Your task to perform on an android device: Search for bose quietcomfort 35 on costco, select the first entry, and add it to the cart. Image 0: 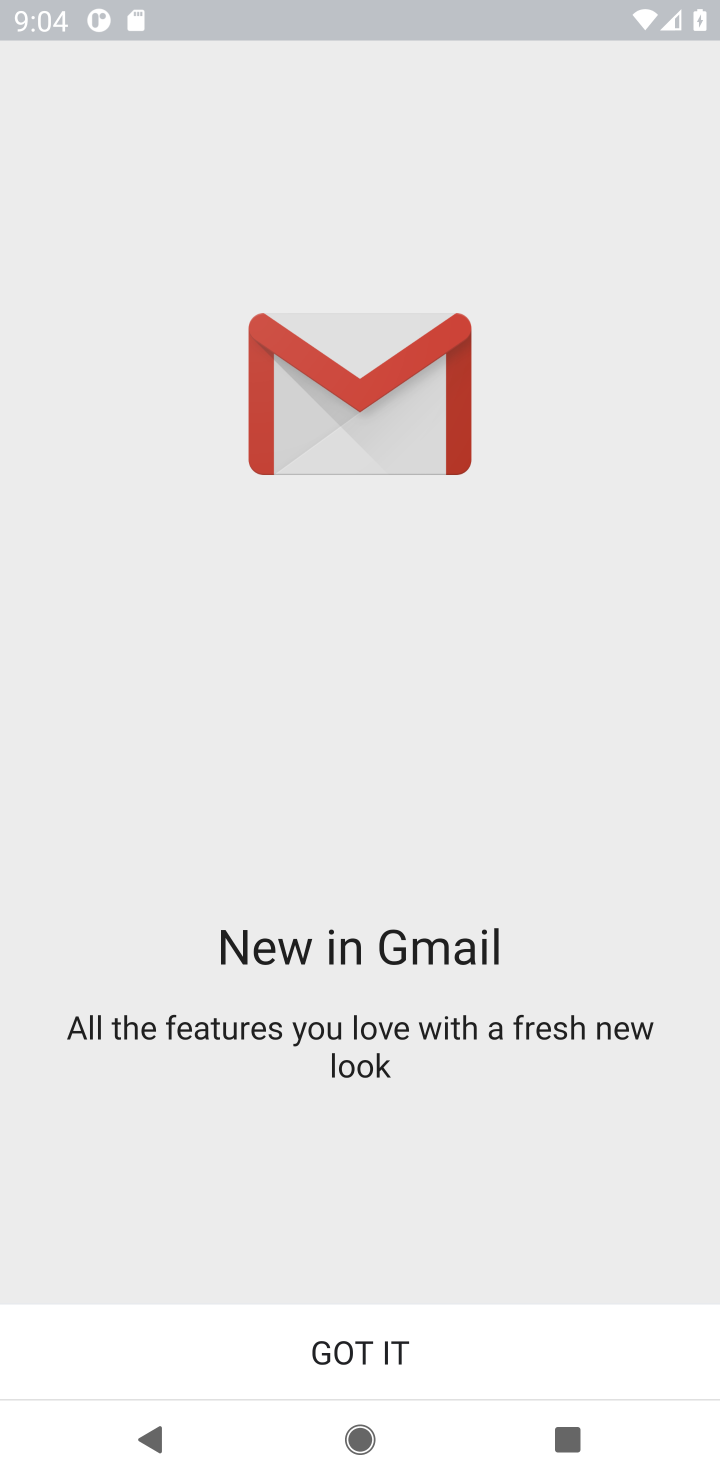
Step 0: press home button
Your task to perform on an android device: Search for bose quietcomfort 35 on costco, select the first entry, and add it to the cart. Image 1: 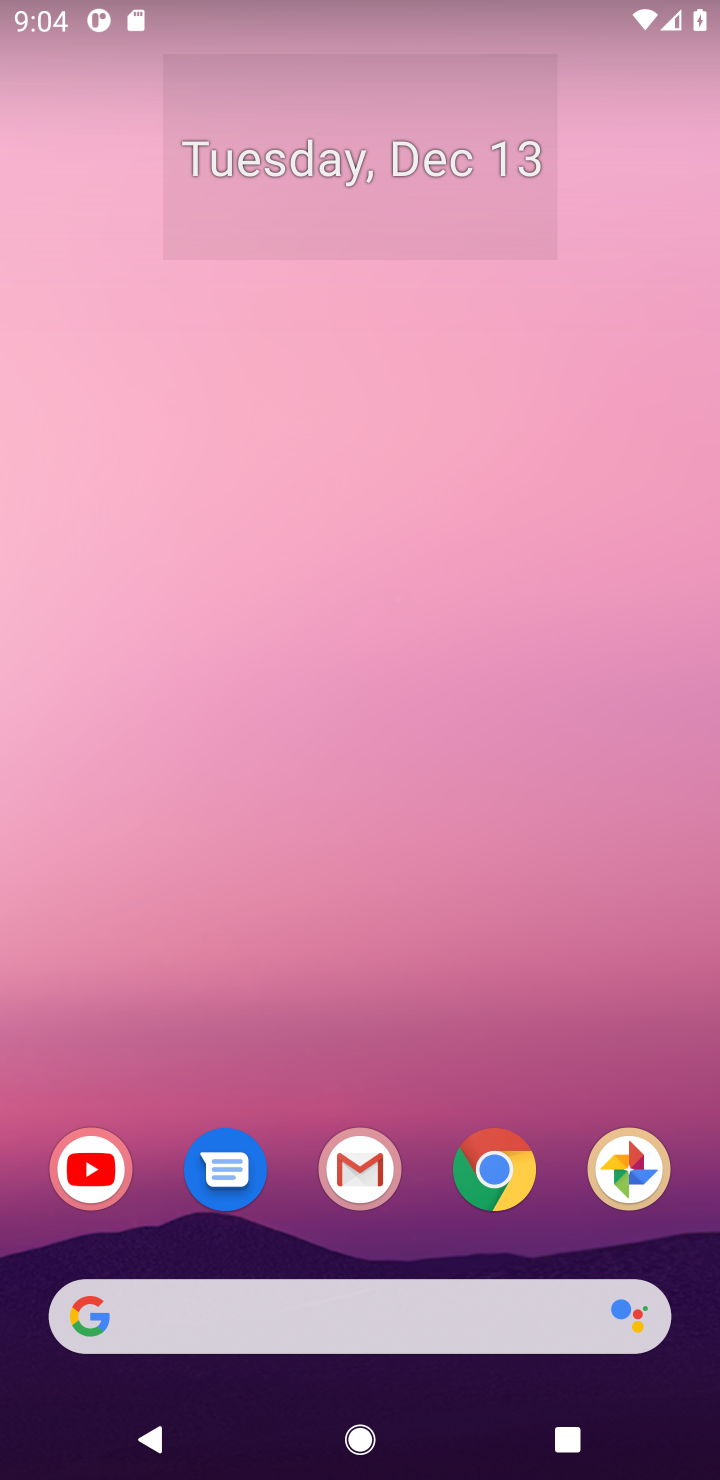
Step 1: click (381, 1301)
Your task to perform on an android device: Search for bose quietcomfort 35 on costco, select the first entry, and add it to the cart. Image 2: 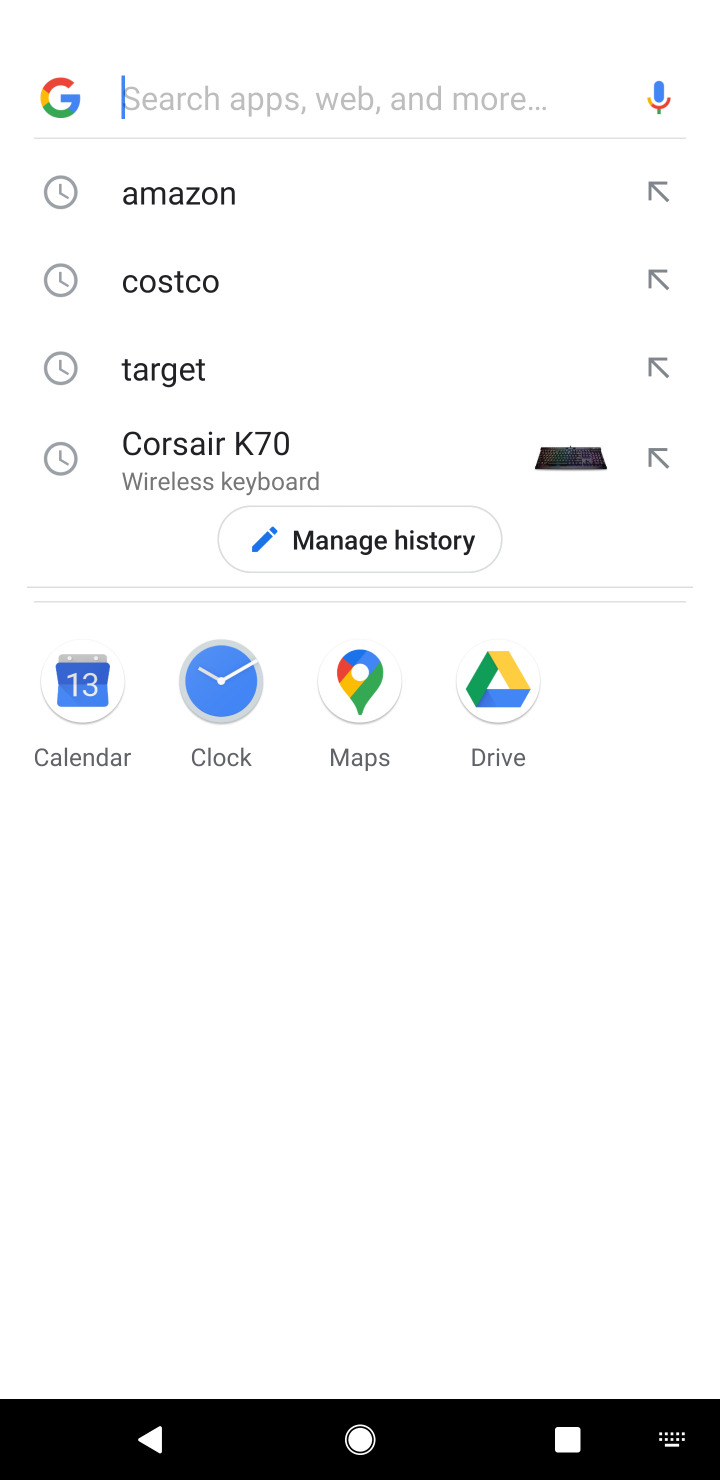
Step 2: type "costco"
Your task to perform on an android device: Search for bose quietcomfort 35 on costco, select the first entry, and add it to the cart. Image 3: 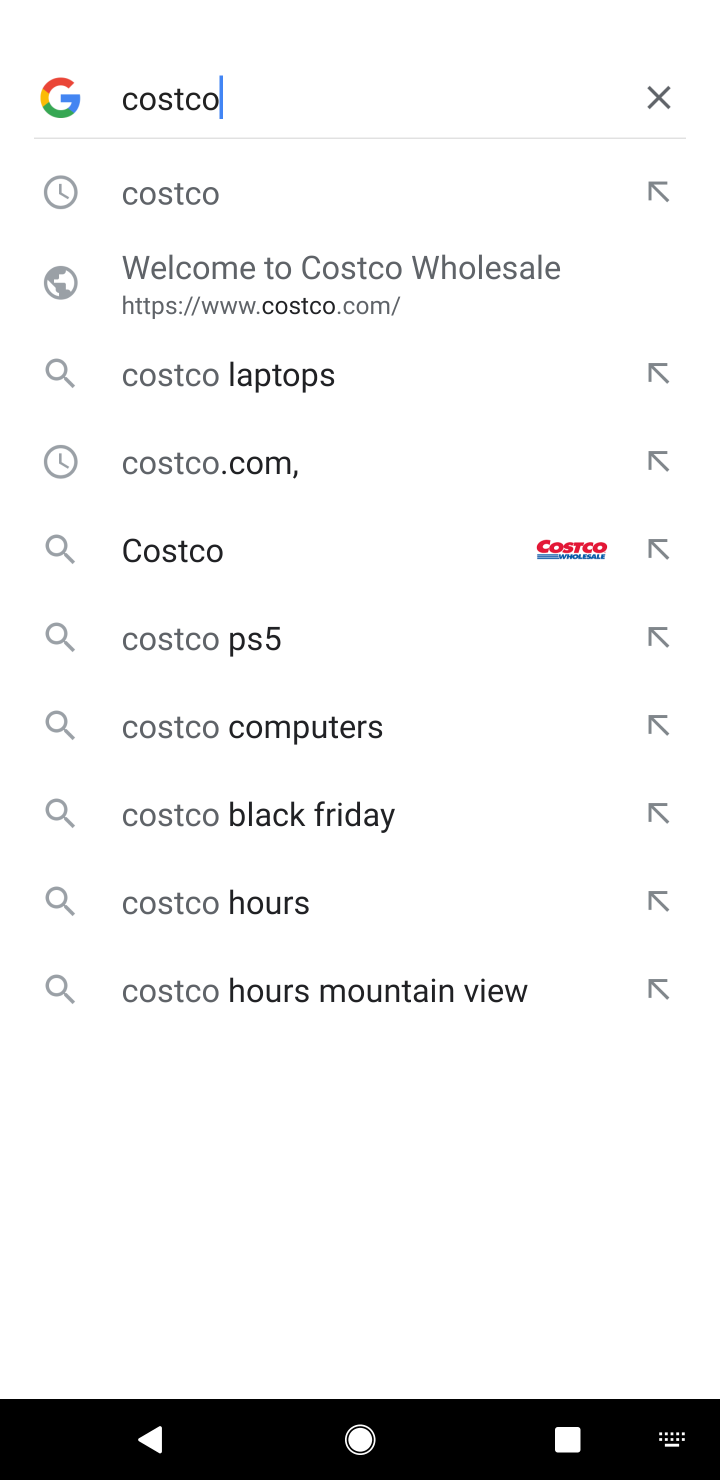
Step 3: click (220, 541)
Your task to perform on an android device: Search for bose quietcomfort 35 on costco, select the first entry, and add it to the cart. Image 4: 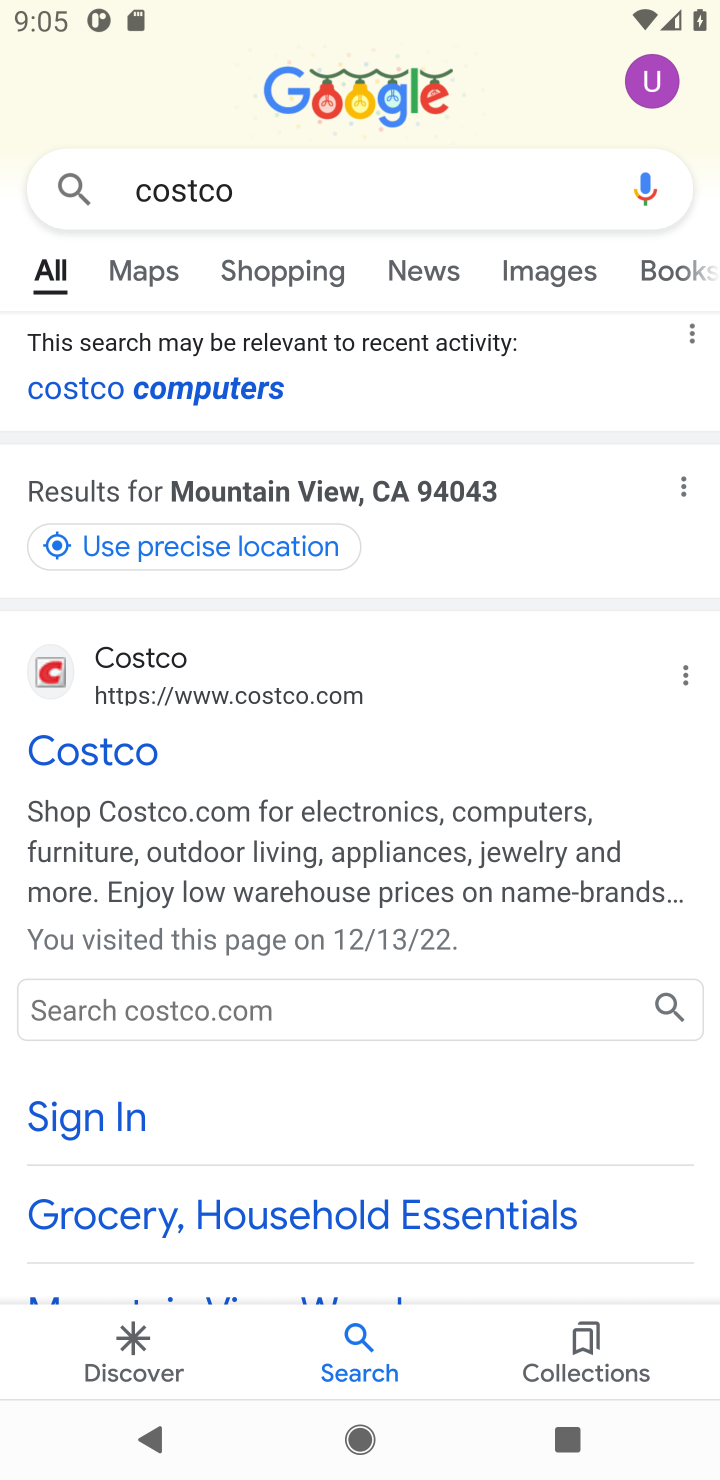
Step 4: click (121, 714)
Your task to perform on an android device: Search for bose quietcomfort 35 on costco, select the first entry, and add it to the cart. Image 5: 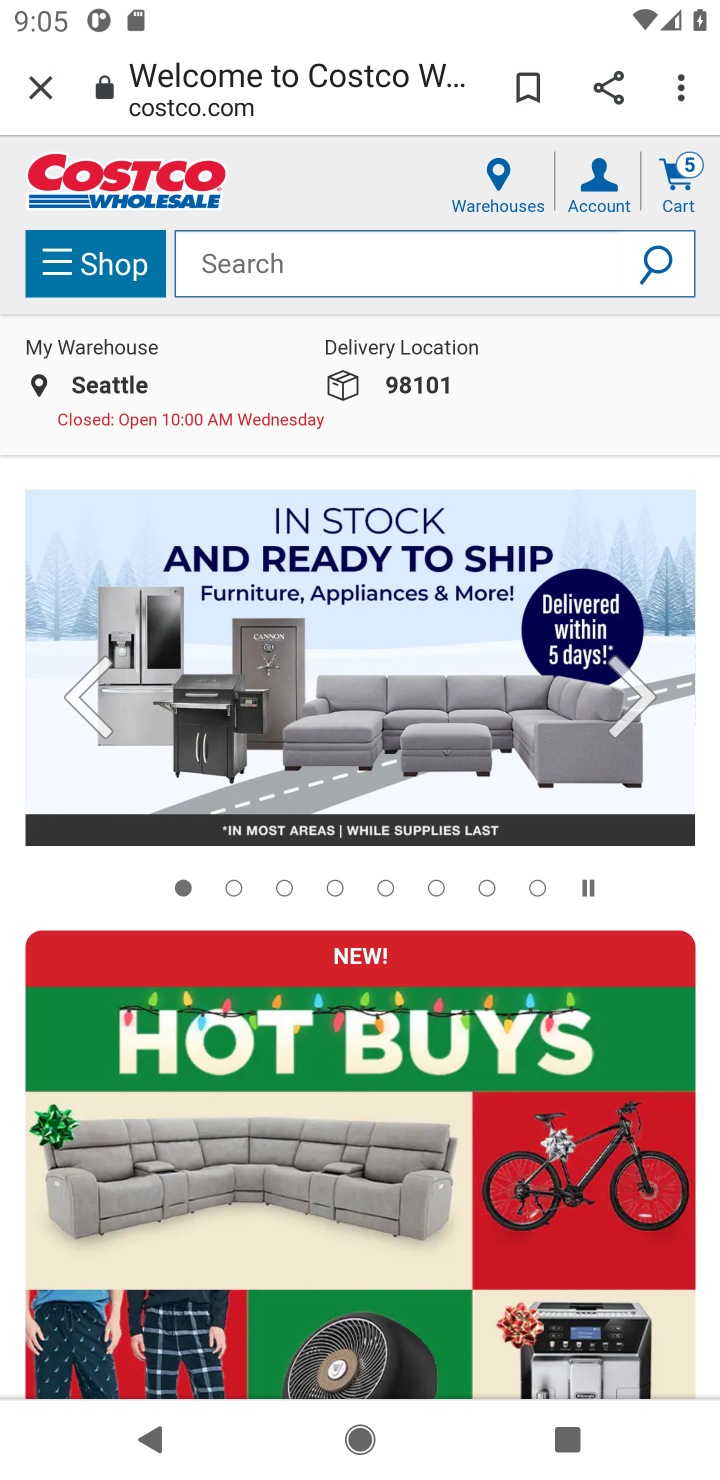
Step 5: click (450, 280)
Your task to perform on an android device: Search for bose quietcomfort 35 on costco, select the first entry, and add it to the cart. Image 6: 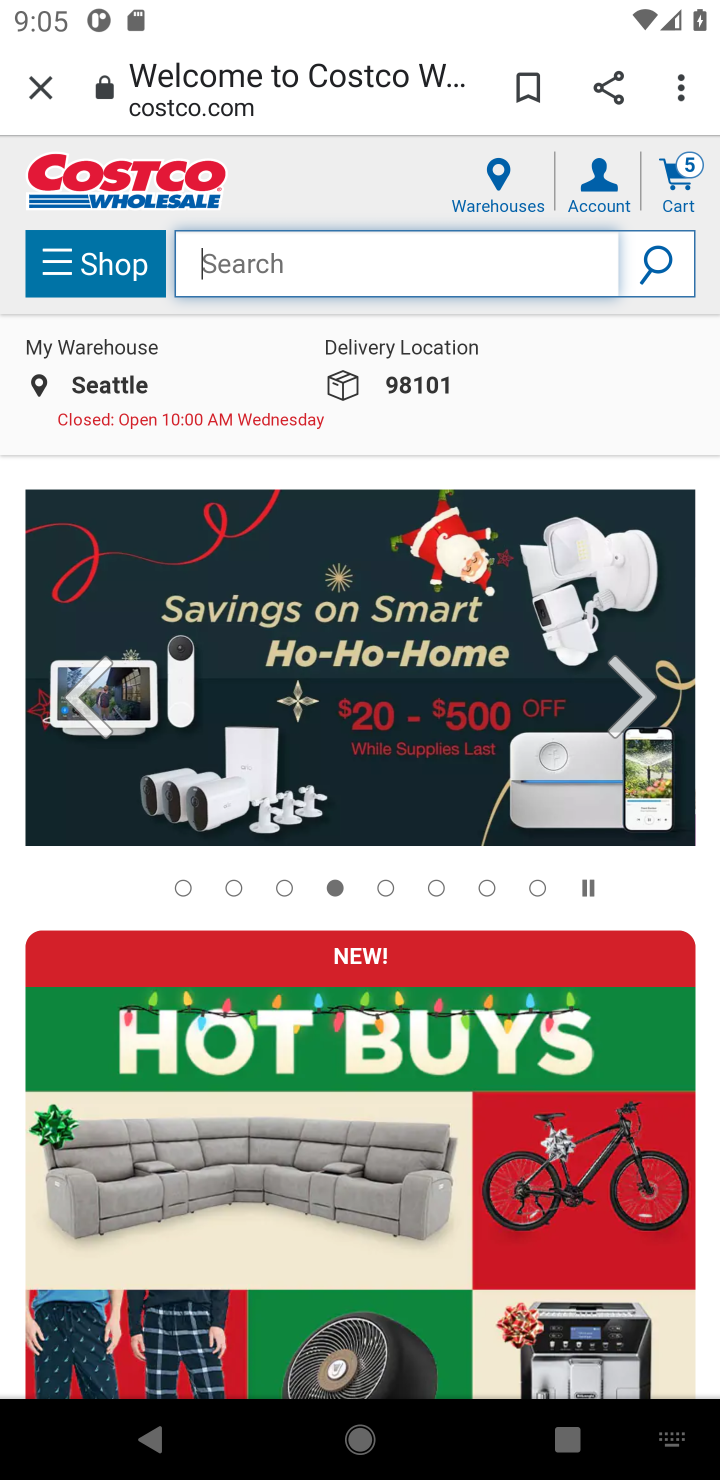
Step 6: type "bose quietcomfort"
Your task to perform on an android device: Search for bose quietcomfort 35 on costco, select the first entry, and add it to the cart. Image 7: 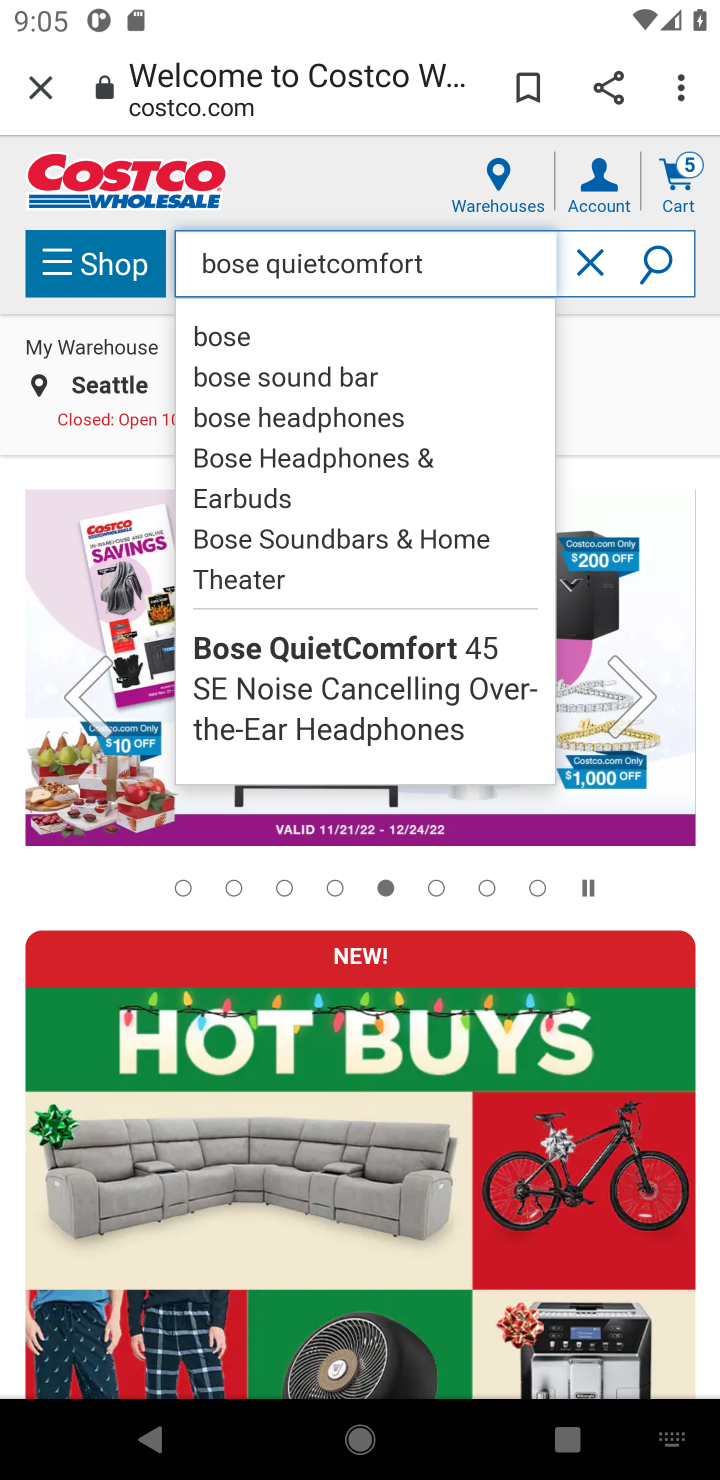
Step 7: click (652, 279)
Your task to perform on an android device: Search for bose quietcomfort 35 on costco, select the first entry, and add it to the cart. Image 8: 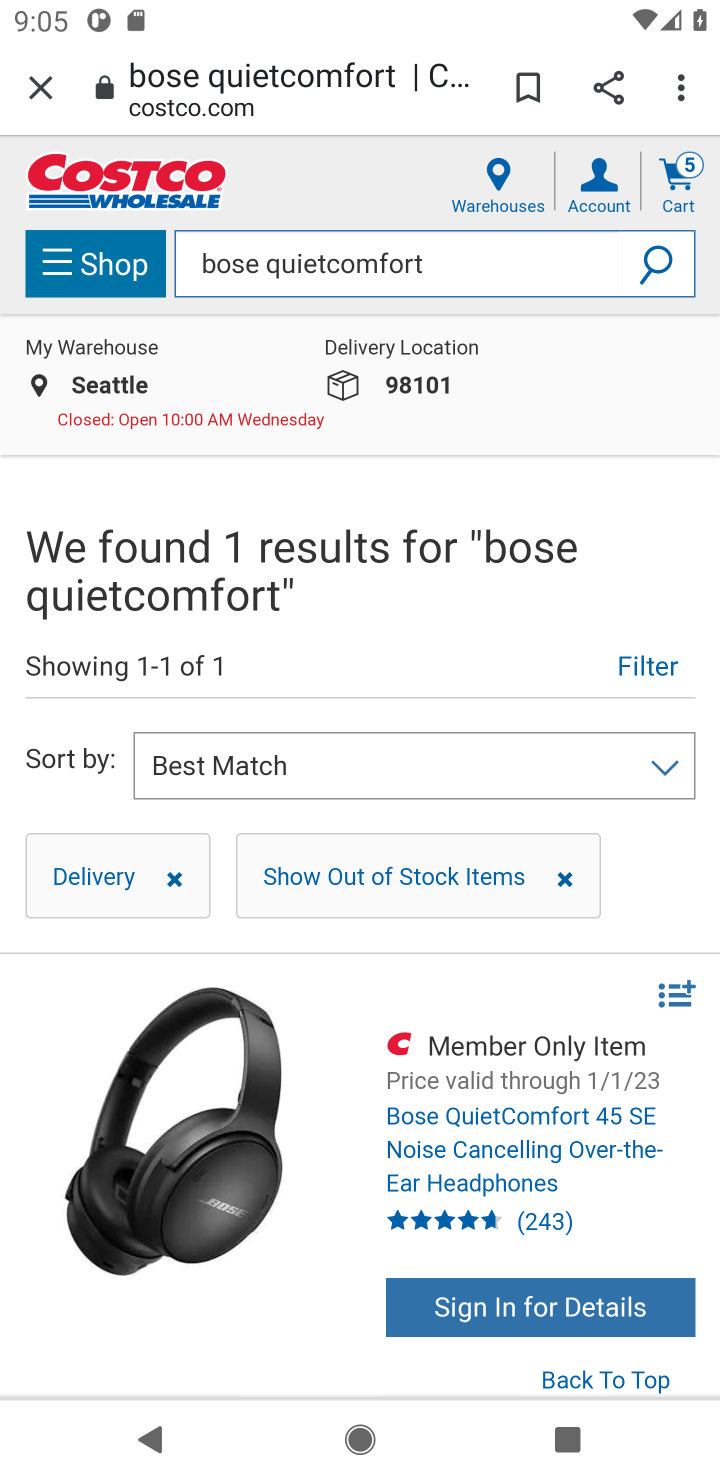
Step 8: task complete